Your task to perform on an android device: toggle priority inbox in the gmail app Image 0: 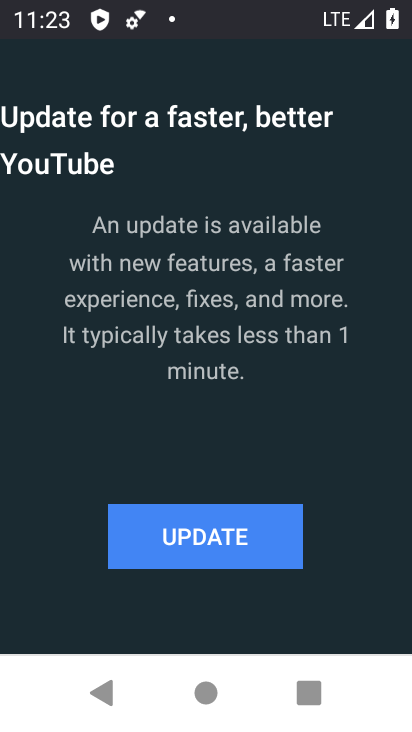
Step 0: press back button
Your task to perform on an android device: toggle priority inbox in the gmail app Image 1: 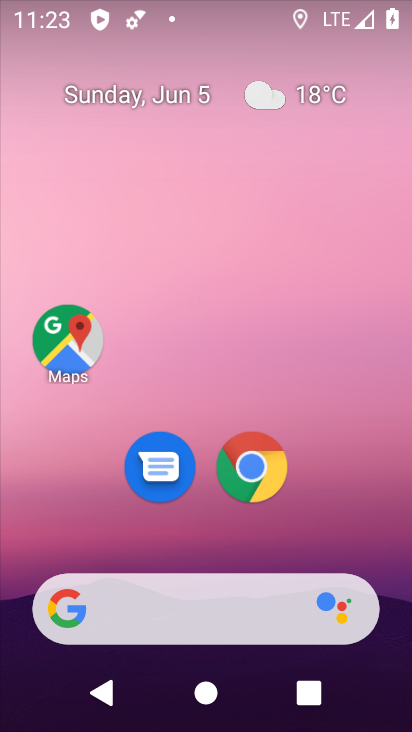
Step 1: drag from (190, 560) to (155, 202)
Your task to perform on an android device: toggle priority inbox in the gmail app Image 2: 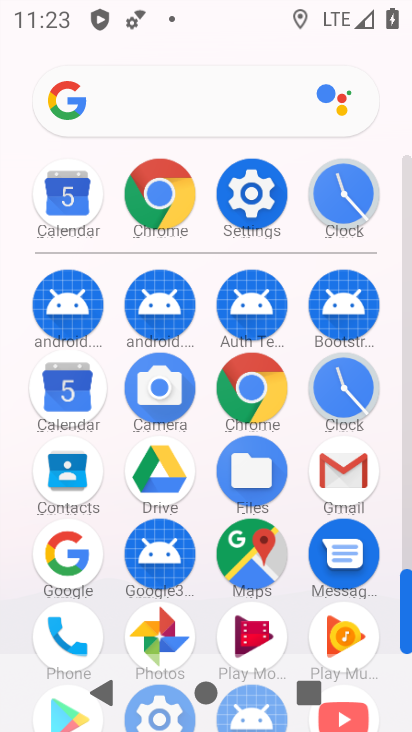
Step 2: click (346, 449)
Your task to perform on an android device: toggle priority inbox in the gmail app Image 3: 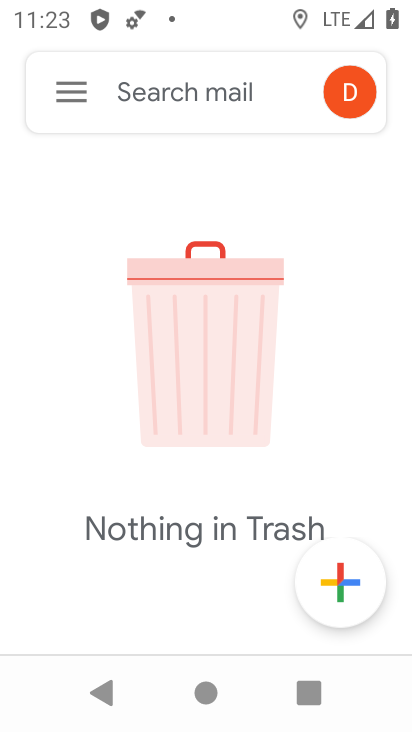
Step 3: click (67, 96)
Your task to perform on an android device: toggle priority inbox in the gmail app Image 4: 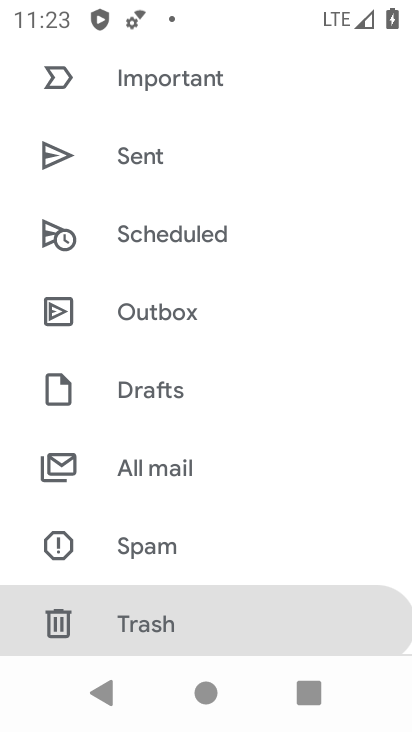
Step 4: drag from (201, 480) to (194, 95)
Your task to perform on an android device: toggle priority inbox in the gmail app Image 5: 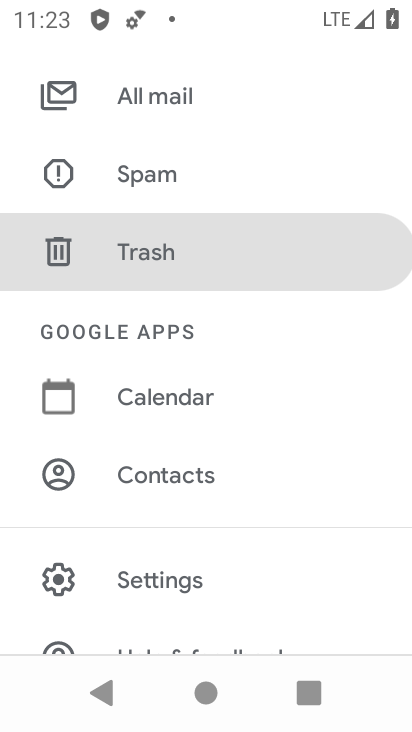
Step 5: click (219, 570)
Your task to perform on an android device: toggle priority inbox in the gmail app Image 6: 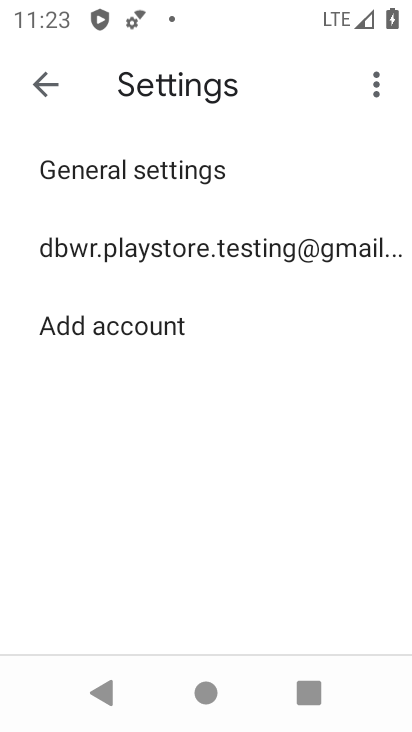
Step 6: click (187, 235)
Your task to perform on an android device: toggle priority inbox in the gmail app Image 7: 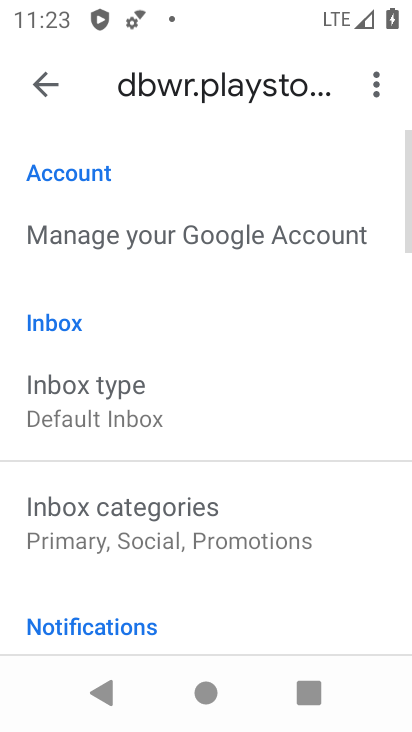
Step 7: click (76, 397)
Your task to perform on an android device: toggle priority inbox in the gmail app Image 8: 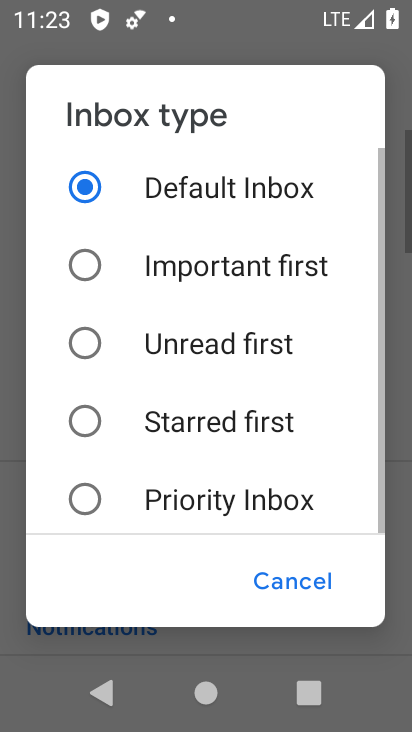
Step 8: click (196, 488)
Your task to perform on an android device: toggle priority inbox in the gmail app Image 9: 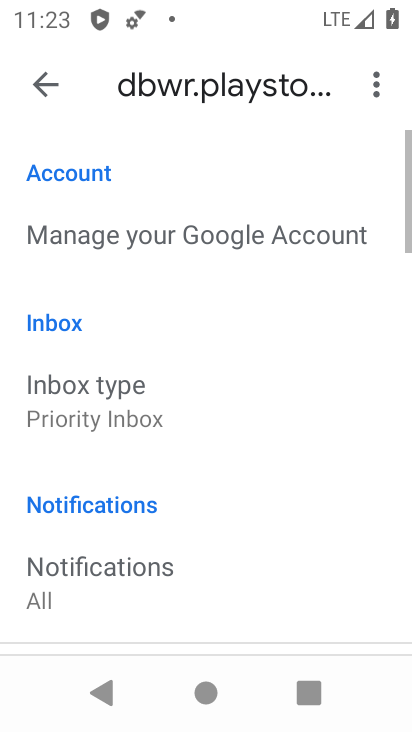
Step 9: task complete